Your task to perform on an android device: open app "Skype" Image 0: 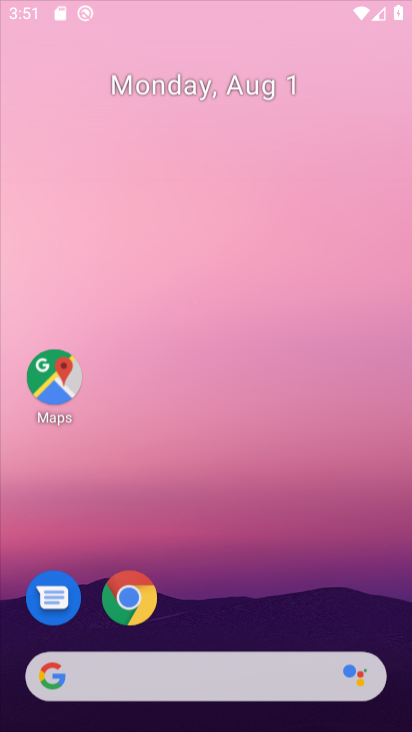
Step 0: click (400, 260)
Your task to perform on an android device: open app "Skype" Image 1: 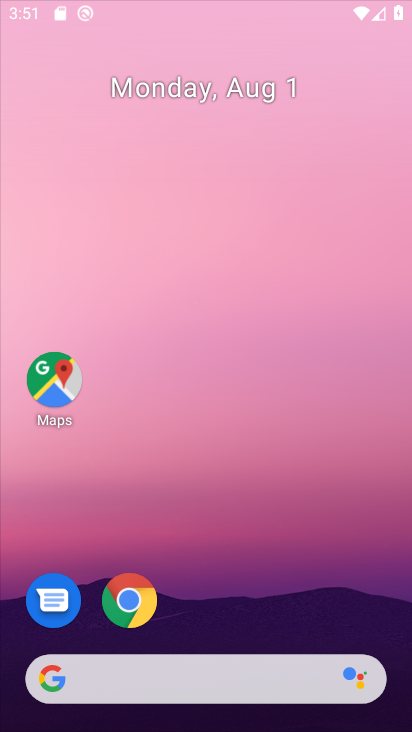
Step 1: drag from (295, 543) to (288, 61)
Your task to perform on an android device: open app "Skype" Image 2: 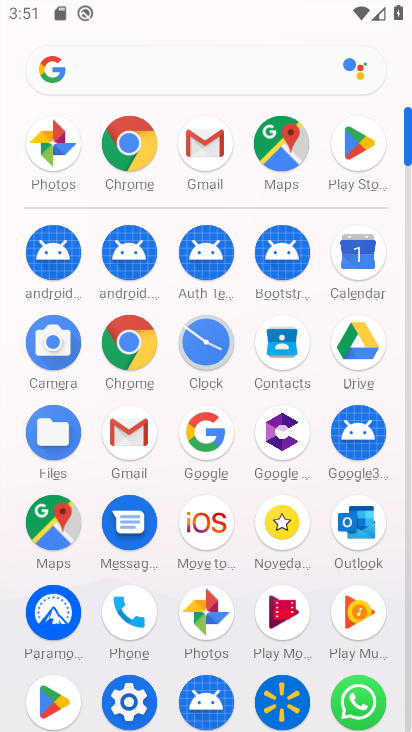
Step 2: click (366, 146)
Your task to perform on an android device: open app "Skype" Image 3: 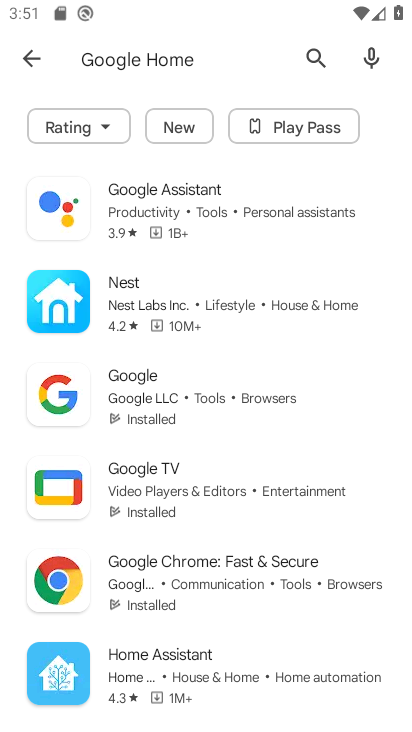
Step 3: click (325, 56)
Your task to perform on an android device: open app "Skype" Image 4: 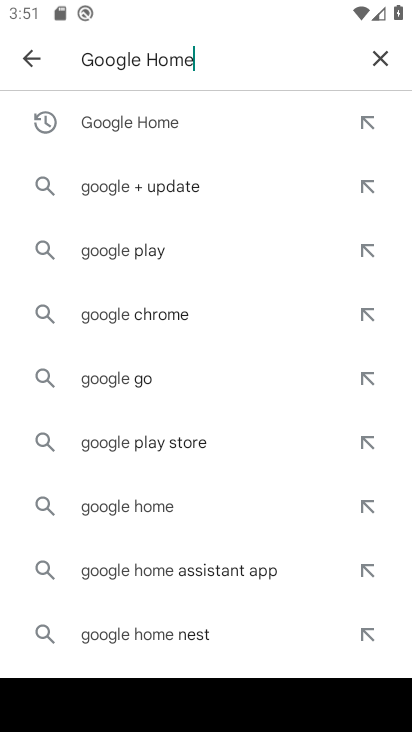
Step 4: click (375, 54)
Your task to perform on an android device: open app "Skype" Image 5: 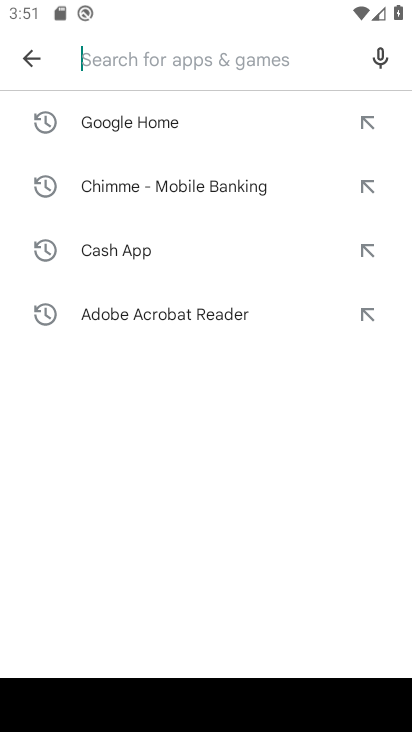
Step 5: type "Skype"
Your task to perform on an android device: open app "Skype" Image 6: 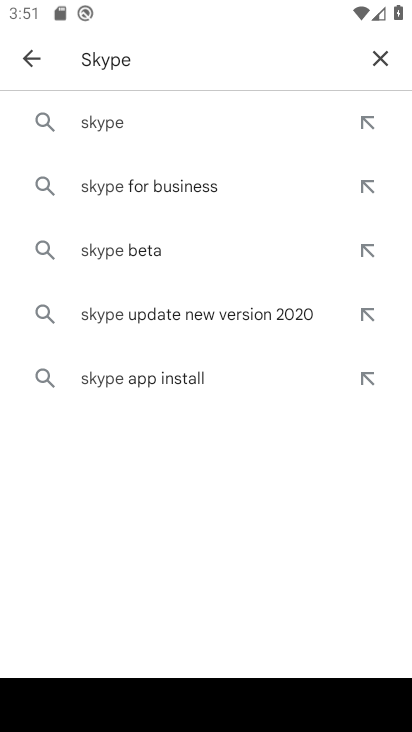
Step 6: press enter
Your task to perform on an android device: open app "Skype" Image 7: 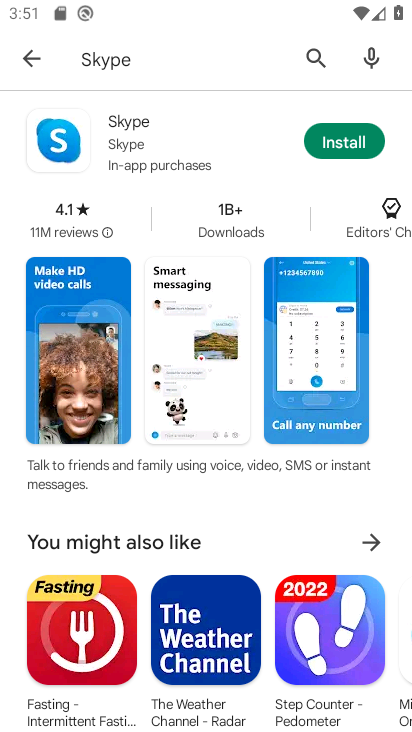
Step 7: click (194, 131)
Your task to perform on an android device: open app "Skype" Image 8: 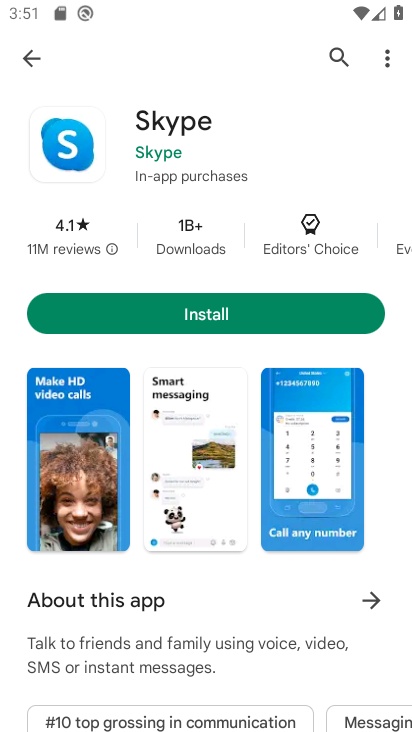
Step 8: task complete